Your task to perform on an android device: Search for a new foundation on Sephora Image 0: 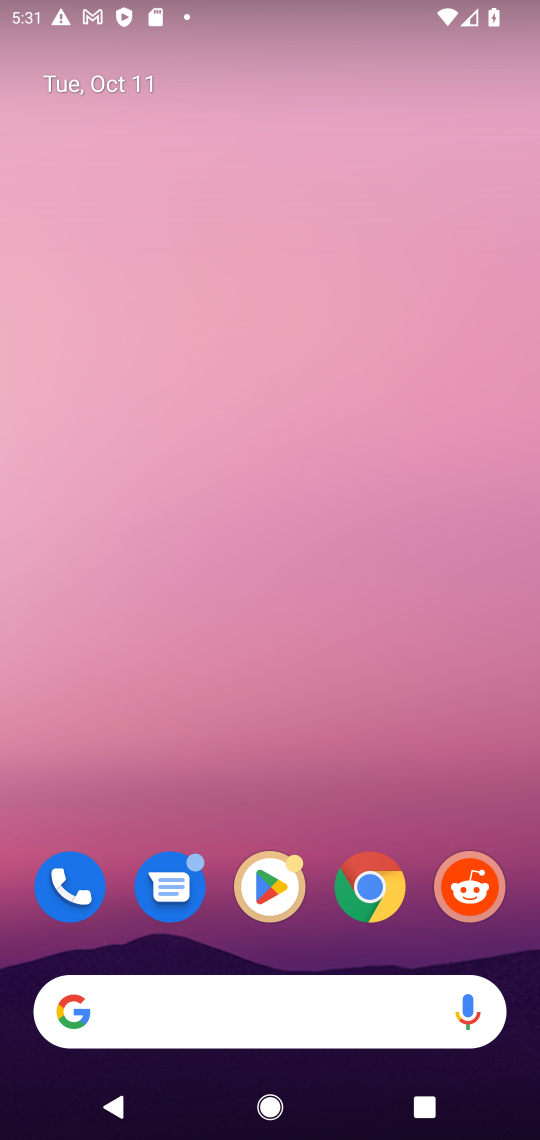
Step 0: click (257, 987)
Your task to perform on an android device: Search for a new foundation on Sephora Image 1: 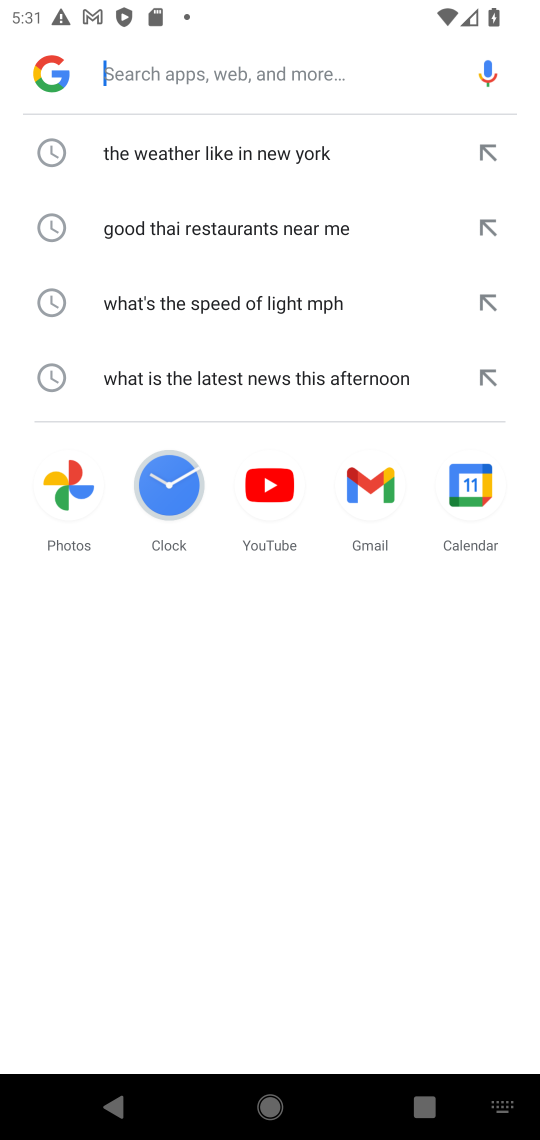
Step 1: type " a new foundation on Sephora"
Your task to perform on an android device: Search for a new foundation on Sephora Image 2: 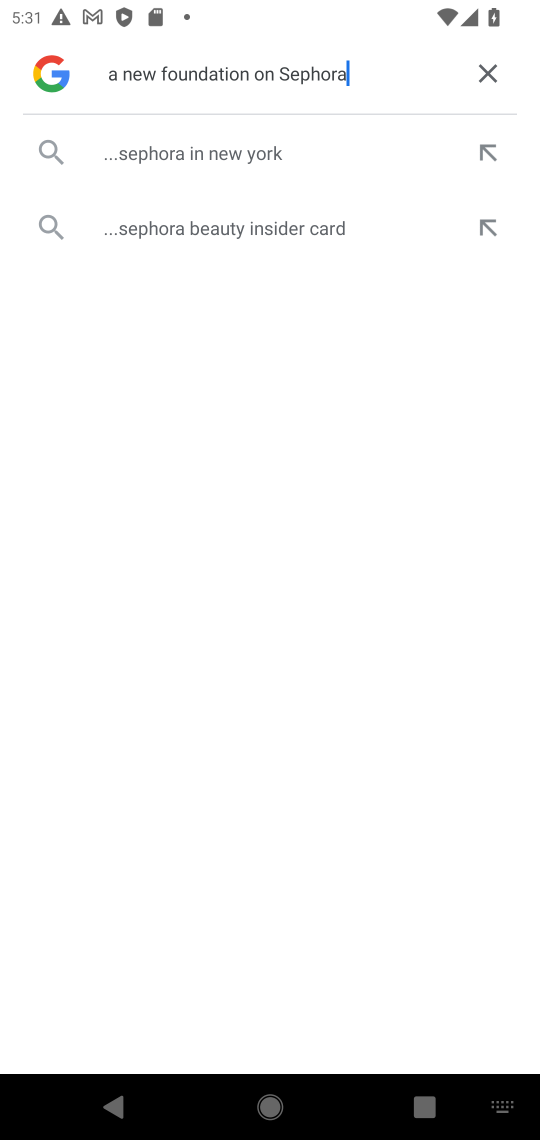
Step 2: click (208, 150)
Your task to perform on an android device: Search for a new foundation on Sephora Image 3: 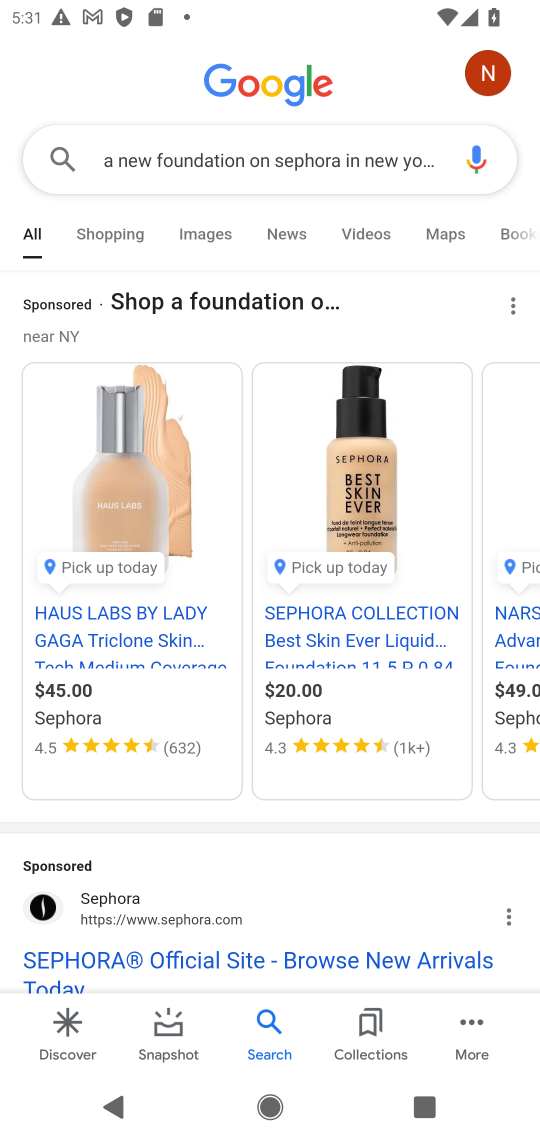
Step 3: task complete